Your task to perform on an android device: Go to Wikipedia Image 0: 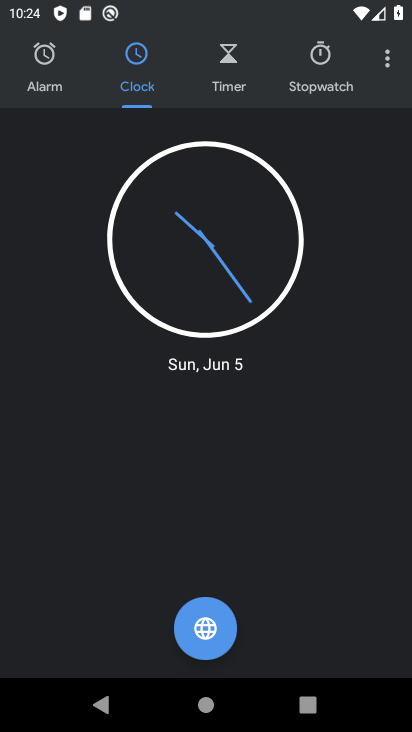
Step 0: press home button
Your task to perform on an android device: Go to Wikipedia Image 1: 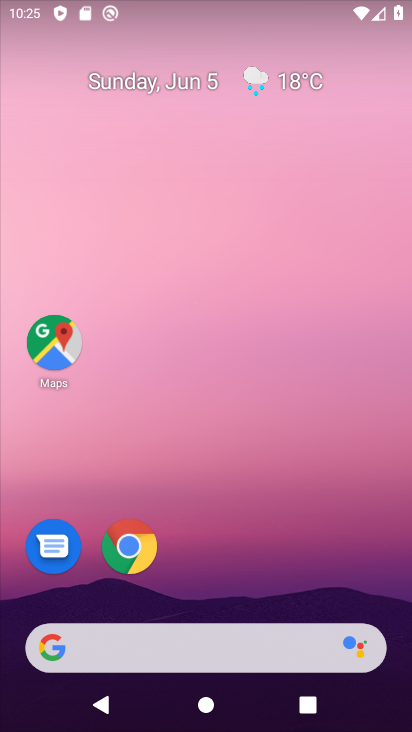
Step 1: click (137, 549)
Your task to perform on an android device: Go to Wikipedia Image 2: 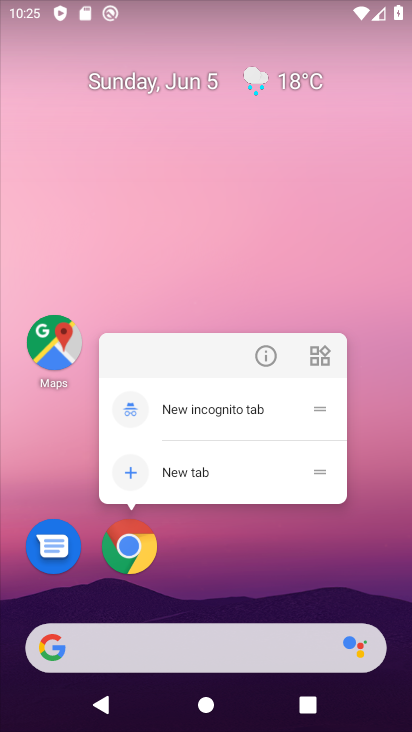
Step 2: click (122, 546)
Your task to perform on an android device: Go to Wikipedia Image 3: 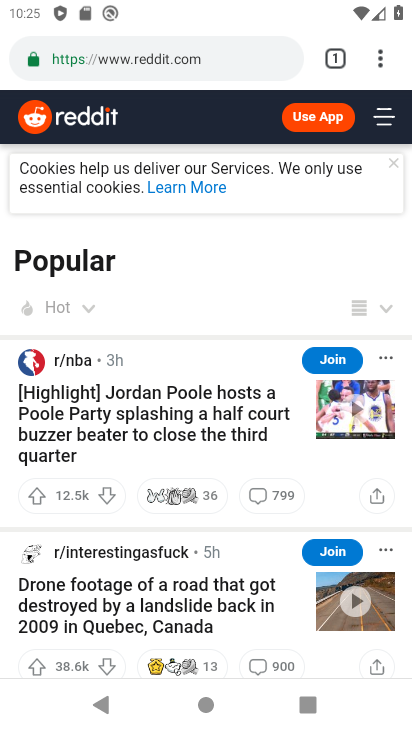
Step 3: click (339, 63)
Your task to perform on an android device: Go to Wikipedia Image 4: 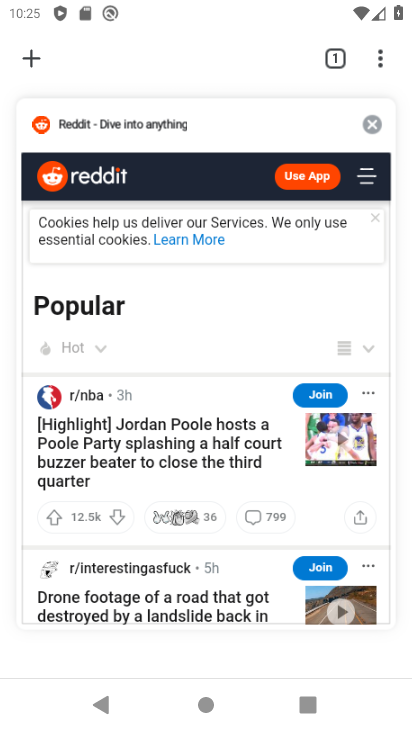
Step 4: click (371, 127)
Your task to perform on an android device: Go to Wikipedia Image 5: 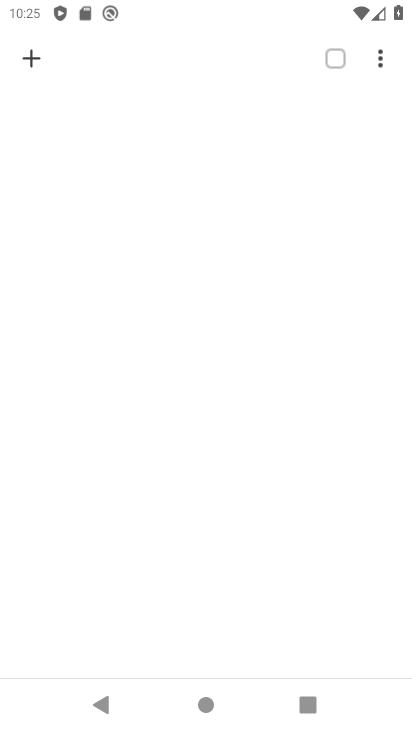
Step 5: click (26, 55)
Your task to perform on an android device: Go to Wikipedia Image 6: 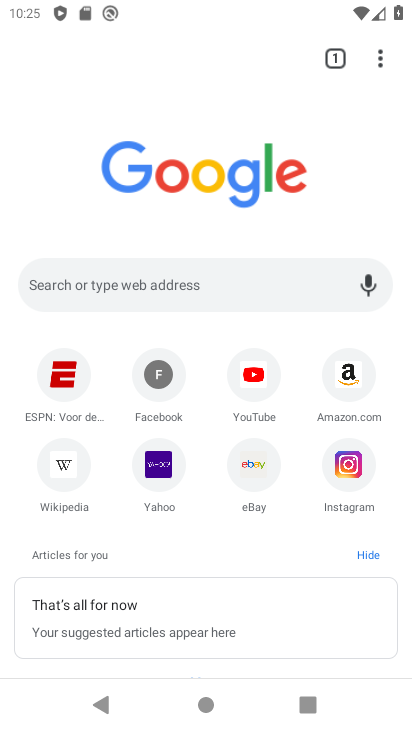
Step 6: click (69, 483)
Your task to perform on an android device: Go to Wikipedia Image 7: 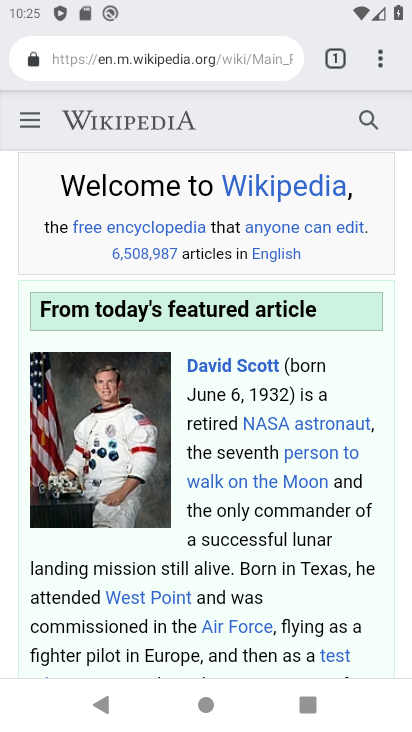
Step 7: task complete